Your task to perform on an android device: change the clock display to analog Image 0: 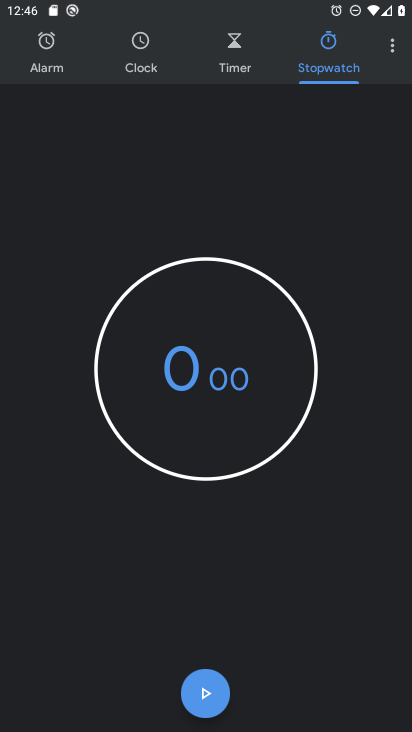
Step 0: press home button
Your task to perform on an android device: change the clock display to analog Image 1: 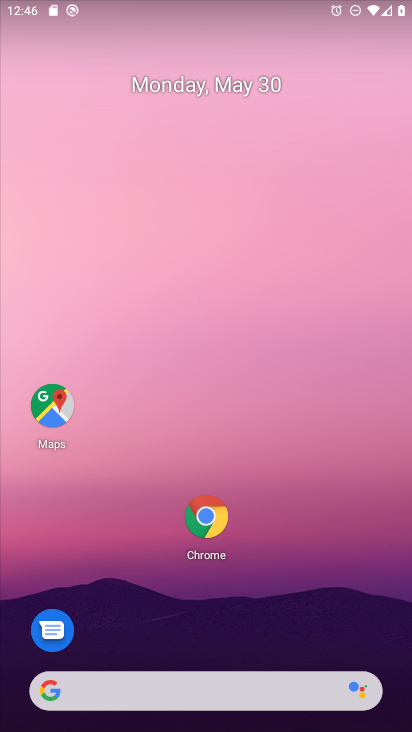
Step 1: drag from (164, 679) to (292, 168)
Your task to perform on an android device: change the clock display to analog Image 2: 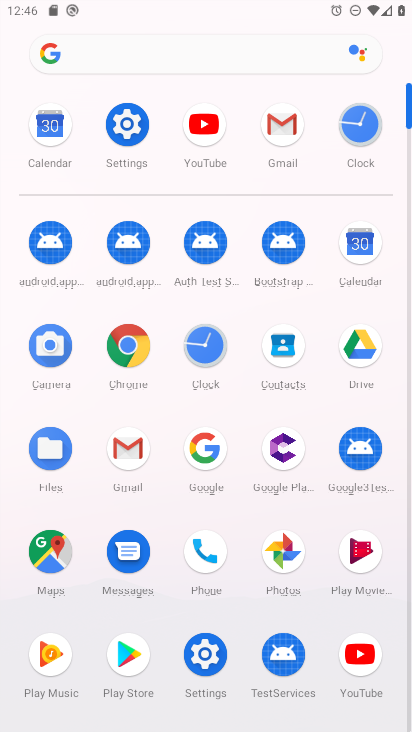
Step 2: click (357, 128)
Your task to perform on an android device: change the clock display to analog Image 3: 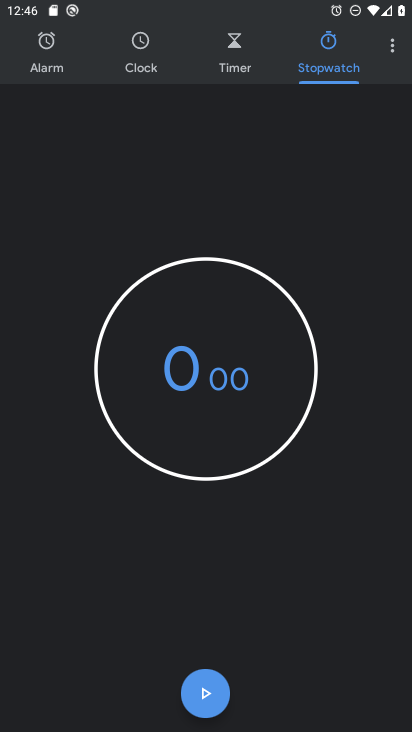
Step 3: click (389, 43)
Your task to perform on an android device: change the clock display to analog Image 4: 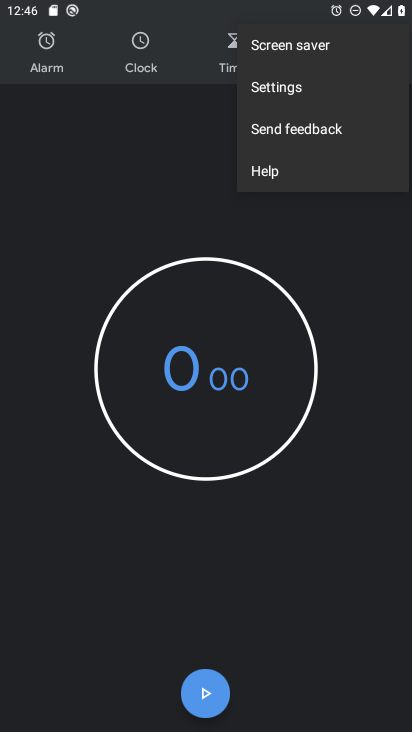
Step 4: click (279, 91)
Your task to perform on an android device: change the clock display to analog Image 5: 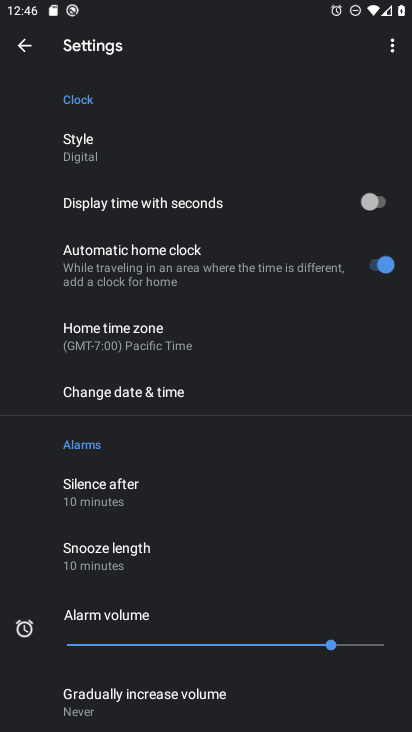
Step 5: click (96, 157)
Your task to perform on an android device: change the clock display to analog Image 6: 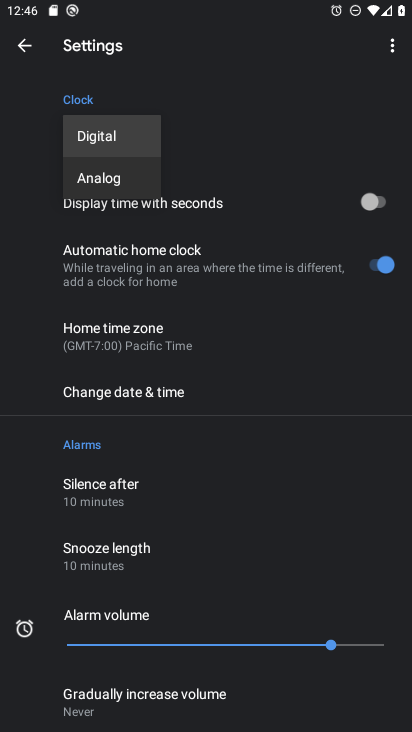
Step 6: click (135, 174)
Your task to perform on an android device: change the clock display to analog Image 7: 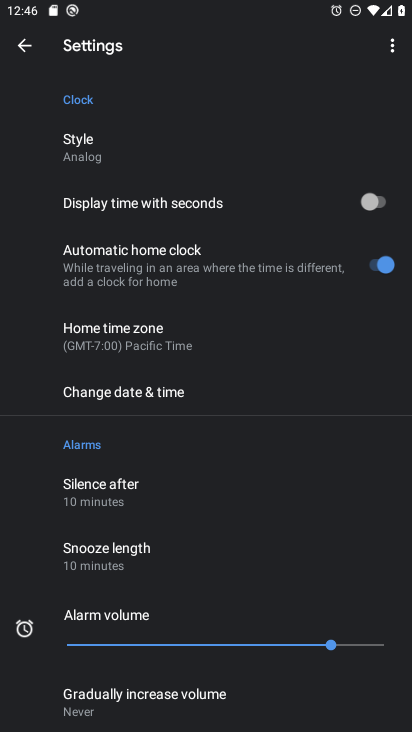
Step 7: task complete